Your task to perform on an android device: turn off priority inbox in the gmail app Image 0: 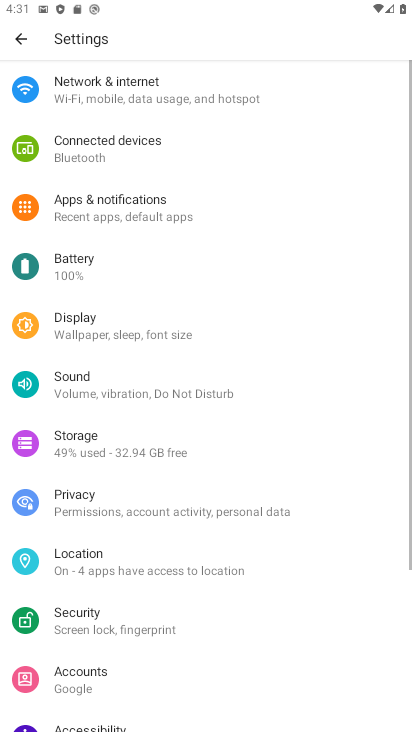
Step 0: press home button
Your task to perform on an android device: turn off priority inbox in the gmail app Image 1: 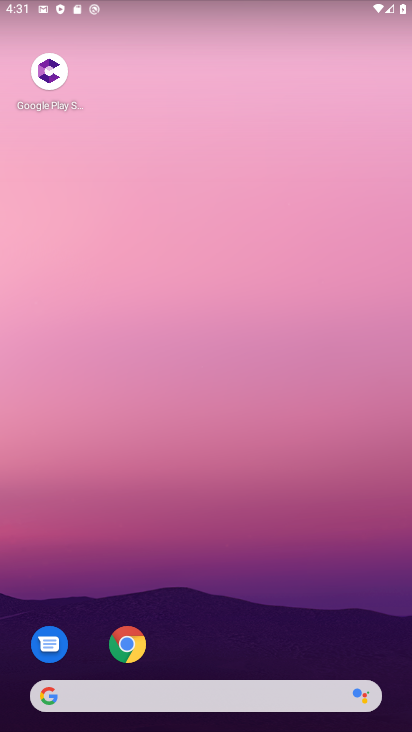
Step 1: drag from (261, 620) to (176, 189)
Your task to perform on an android device: turn off priority inbox in the gmail app Image 2: 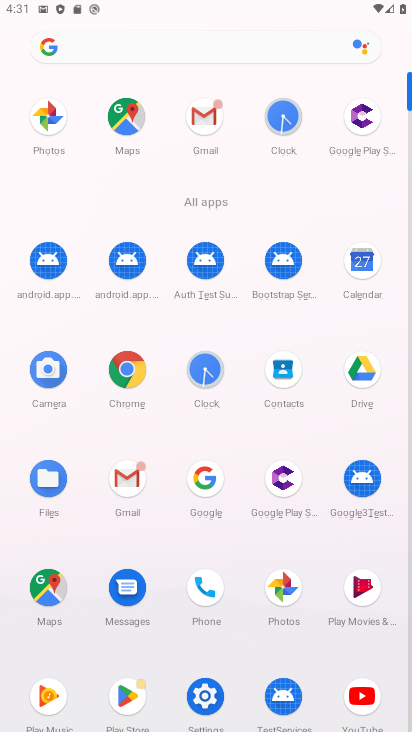
Step 2: click (206, 112)
Your task to perform on an android device: turn off priority inbox in the gmail app Image 3: 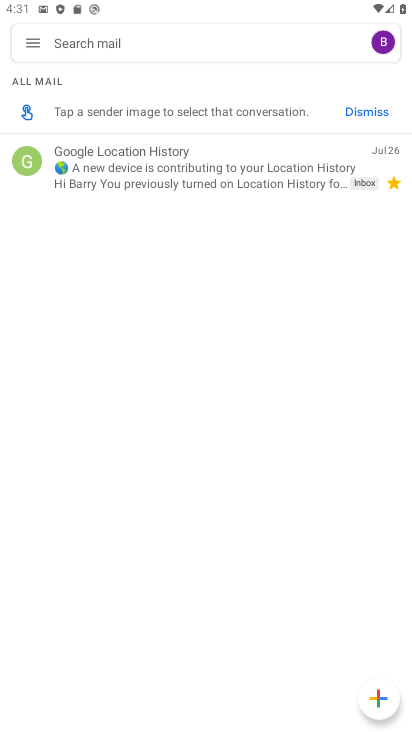
Step 3: click (37, 47)
Your task to perform on an android device: turn off priority inbox in the gmail app Image 4: 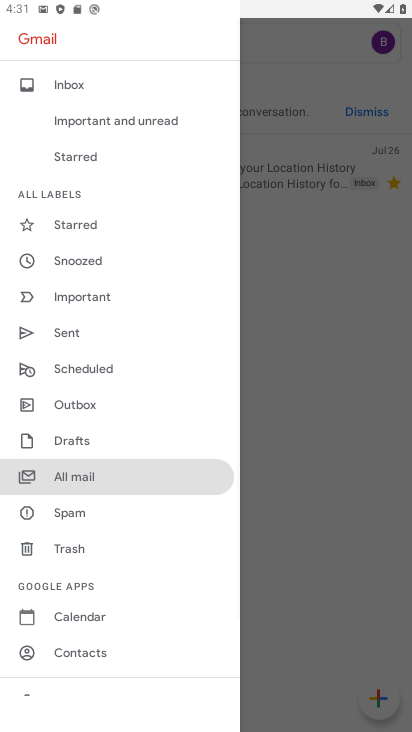
Step 4: drag from (142, 625) to (141, 389)
Your task to perform on an android device: turn off priority inbox in the gmail app Image 5: 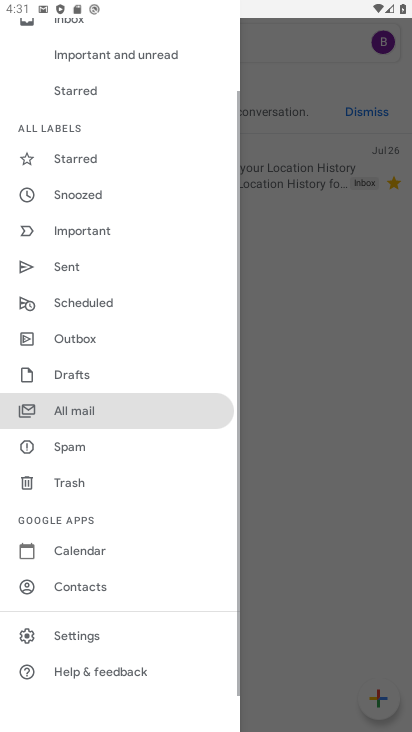
Step 5: click (118, 626)
Your task to perform on an android device: turn off priority inbox in the gmail app Image 6: 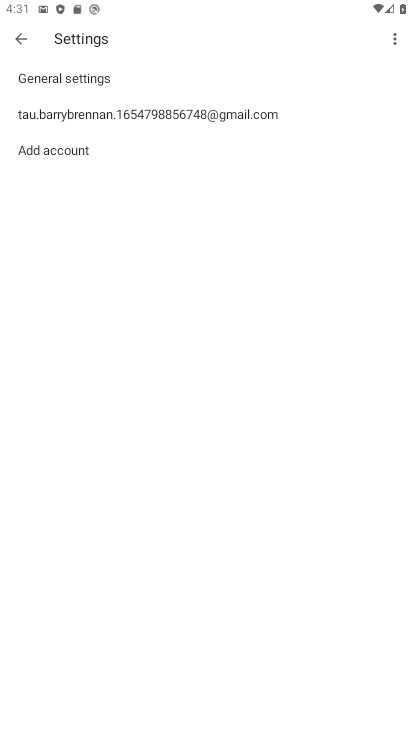
Step 6: click (308, 115)
Your task to perform on an android device: turn off priority inbox in the gmail app Image 7: 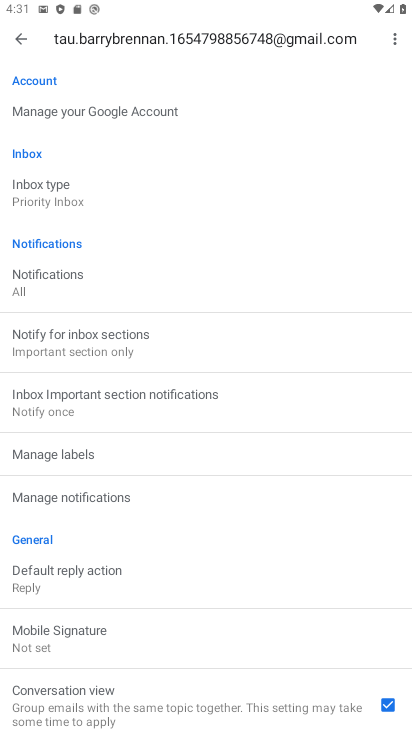
Step 7: click (78, 202)
Your task to perform on an android device: turn off priority inbox in the gmail app Image 8: 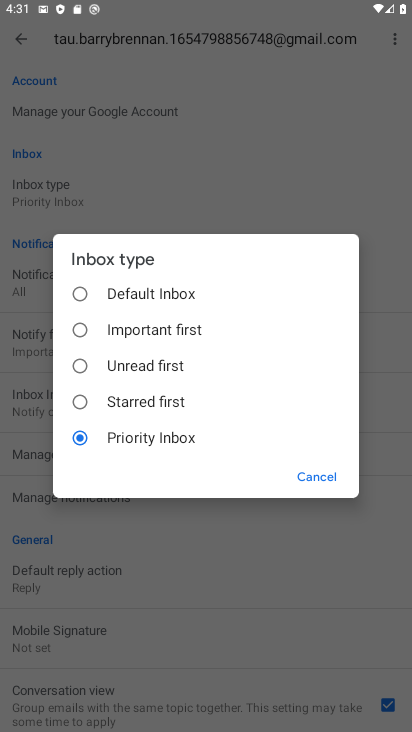
Step 8: click (211, 300)
Your task to perform on an android device: turn off priority inbox in the gmail app Image 9: 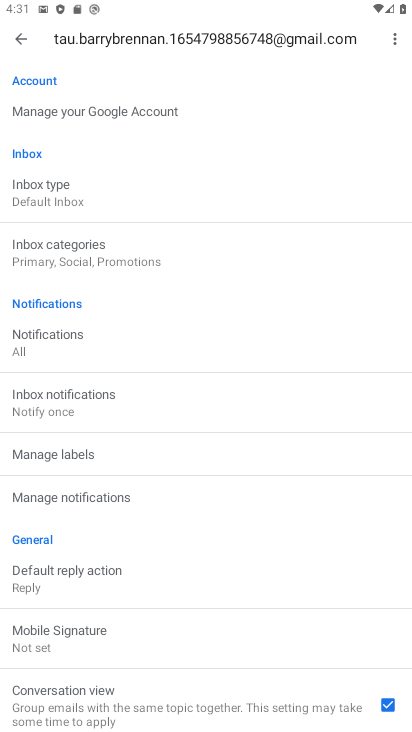
Step 9: task complete